Your task to perform on an android device: Open a new window in the chrome app Image 0: 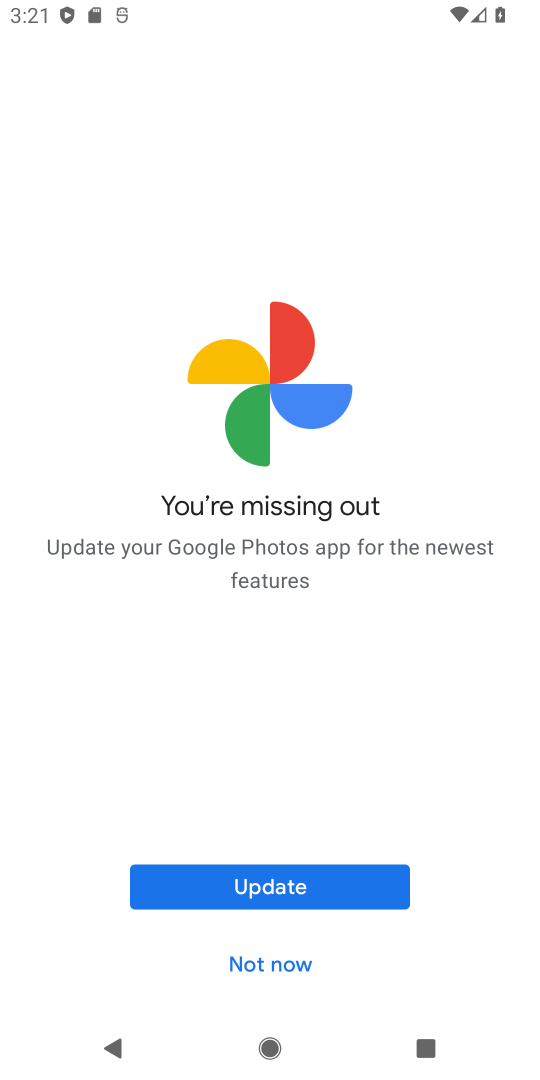
Step 0: press home button
Your task to perform on an android device: Open a new window in the chrome app Image 1: 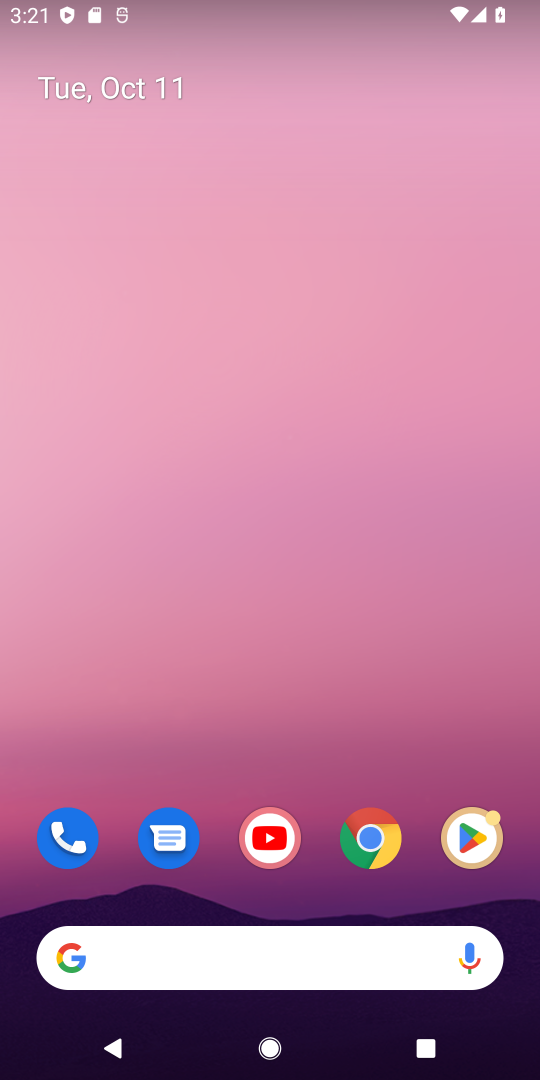
Step 1: click (376, 839)
Your task to perform on an android device: Open a new window in the chrome app Image 2: 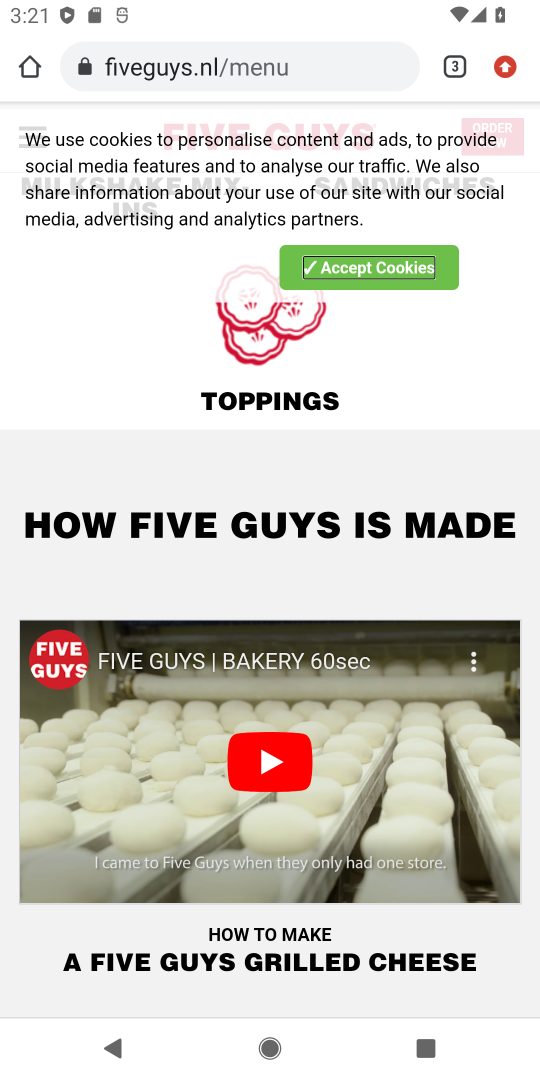
Step 2: click (448, 62)
Your task to perform on an android device: Open a new window in the chrome app Image 3: 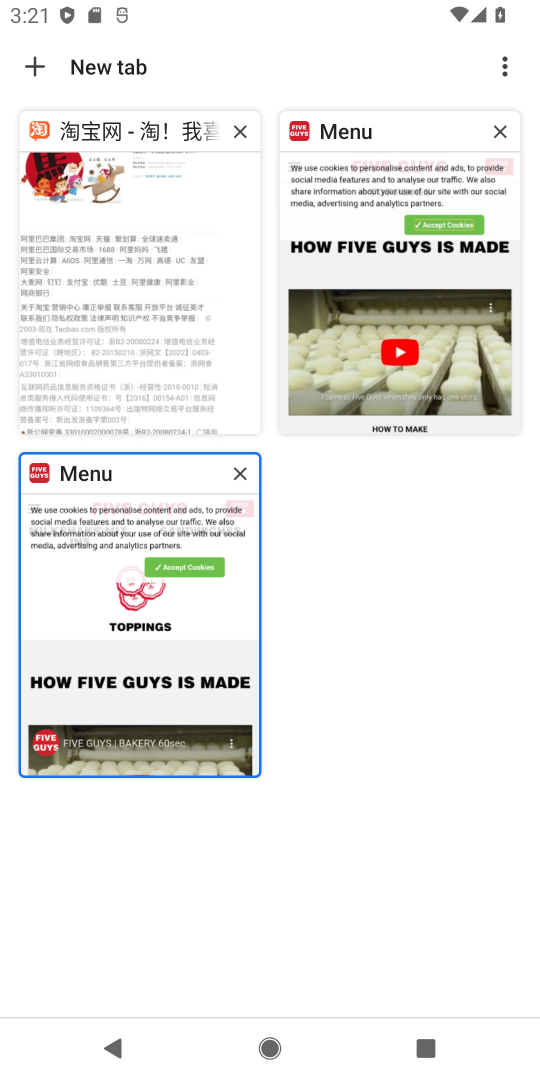
Step 3: click (45, 64)
Your task to perform on an android device: Open a new window in the chrome app Image 4: 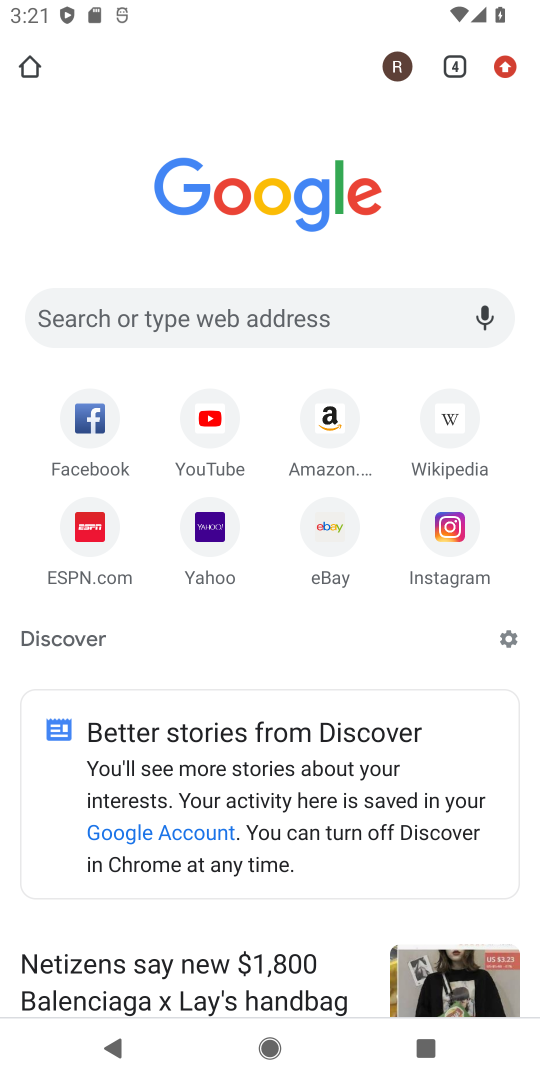
Step 4: task complete